Your task to perform on an android device: set the stopwatch Image 0: 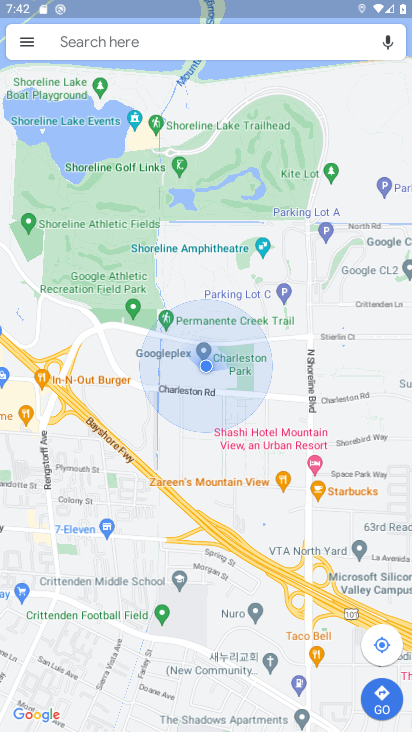
Step 0: press home button
Your task to perform on an android device: set the stopwatch Image 1: 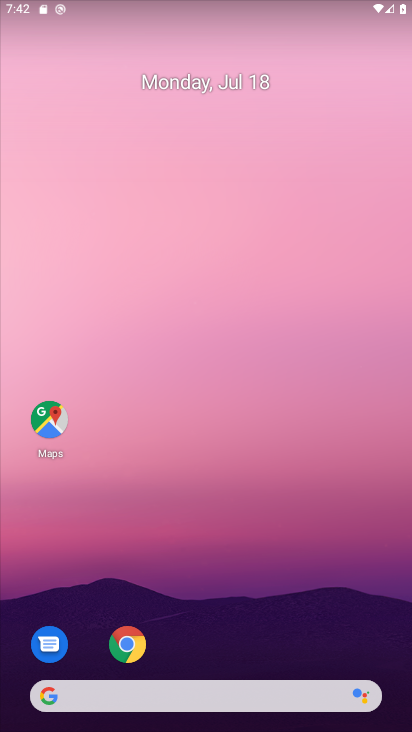
Step 1: drag from (245, 666) to (207, 252)
Your task to perform on an android device: set the stopwatch Image 2: 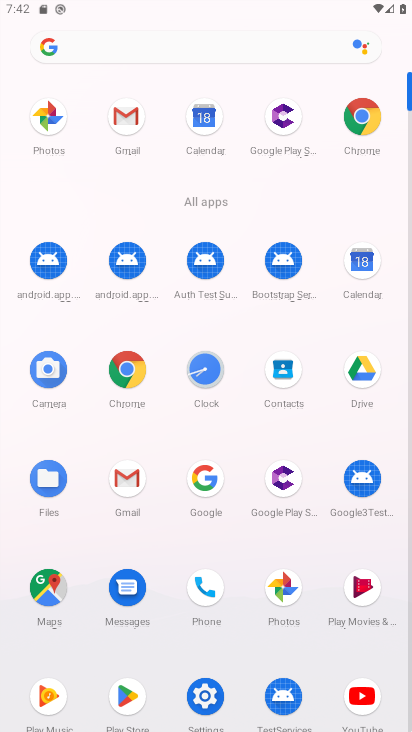
Step 2: click (200, 363)
Your task to perform on an android device: set the stopwatch Image 3: 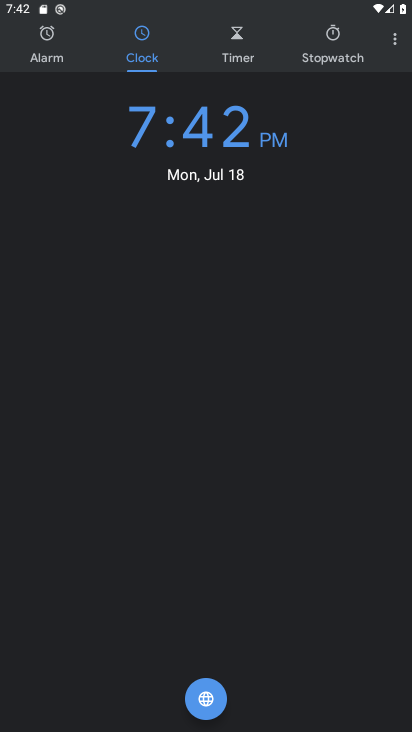
Step 3: click (345, 56)
Your task to perform on an android device: set the stopwatch Image 4: 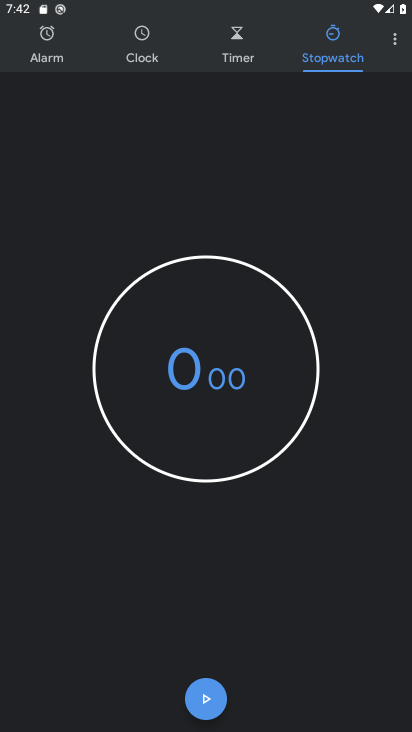
Step 4: task complete